Your task to perform on an android device: find which apps use the phone's location Image 0: 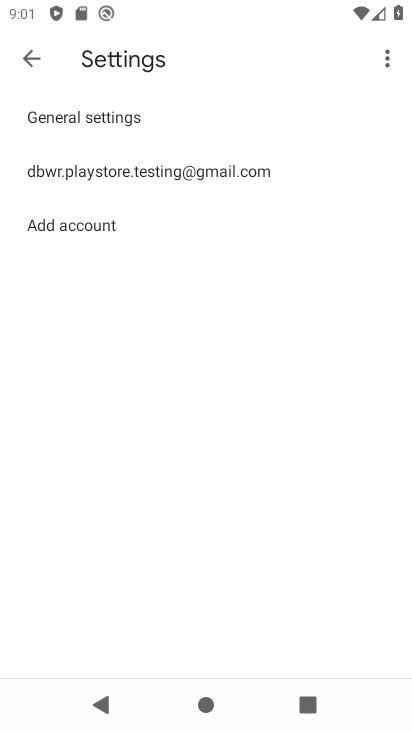
Step 0: press home button
Your task to perform on an android device: find which apps use the phone's location Image 1: 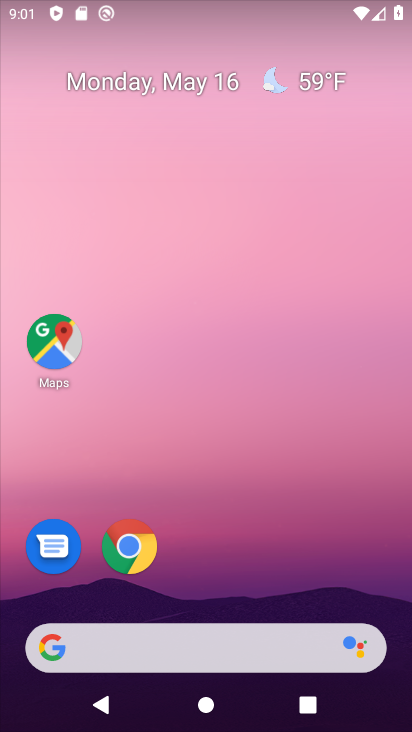
Step 1: drag from (230, 450) to (108, 372)
Your task to perform on an android device: find which apps use the phone's location Image 2: 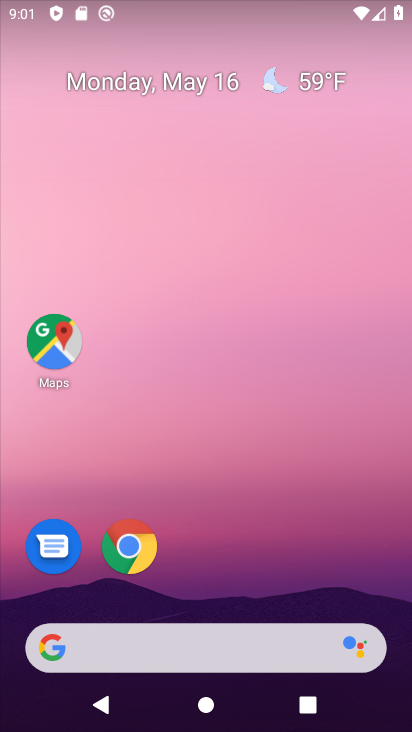
Step 2: drag from (296, 556) to (338, 10)
Your task to perform on an android device: find which apps use the phone's location Image 3: 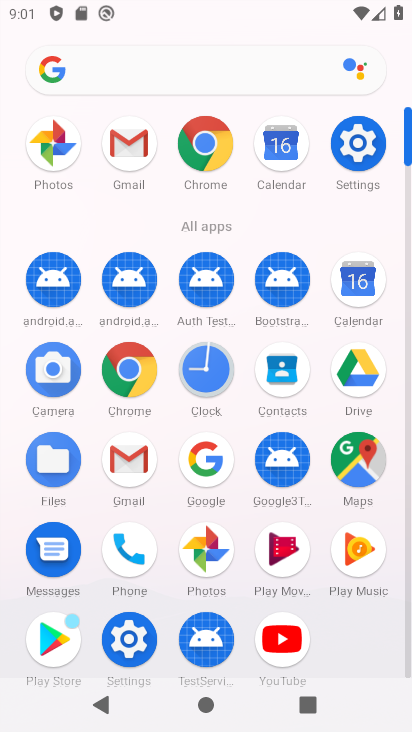
Step 3: click (358, 174)
Your task to perform on an android device: find which apps use the phone's location Image 4: 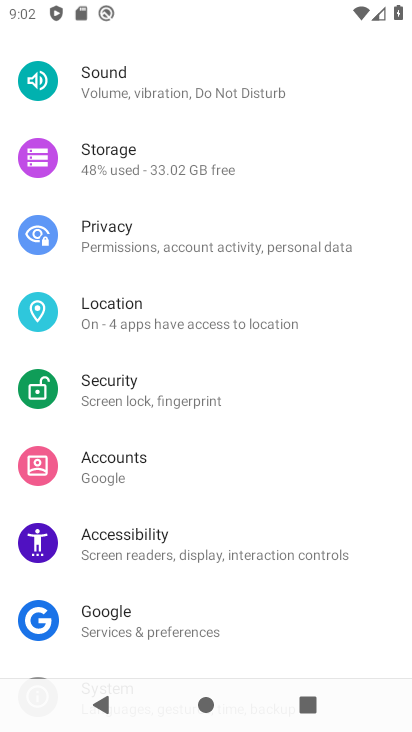
Step 4: click (110, 328)
Your task to perform on an android device: find which apps use the phone's location Image 5: 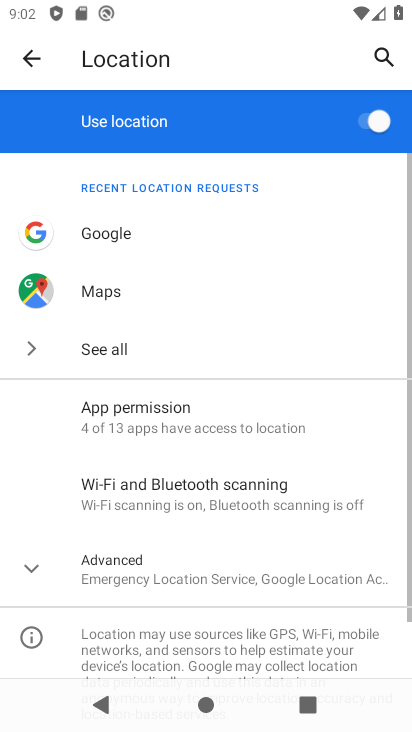
Step 5: click (109, 410)
Your task to perform on an android device: find which apps use the phone's location Image 6: 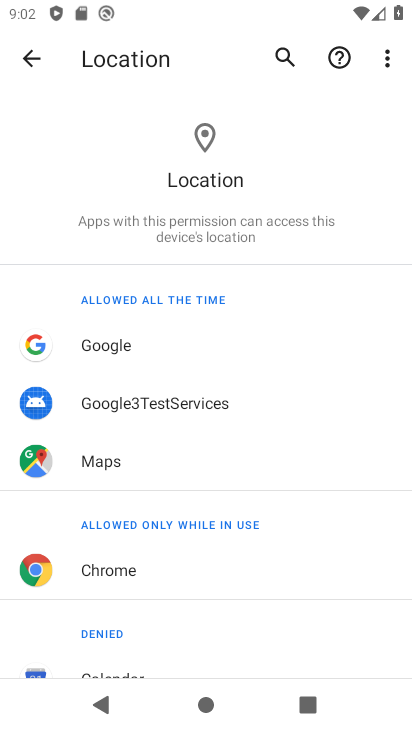
Step 6: task complete